Your task to perform on an android device: turn smart compose on in the gmail app Image 0: 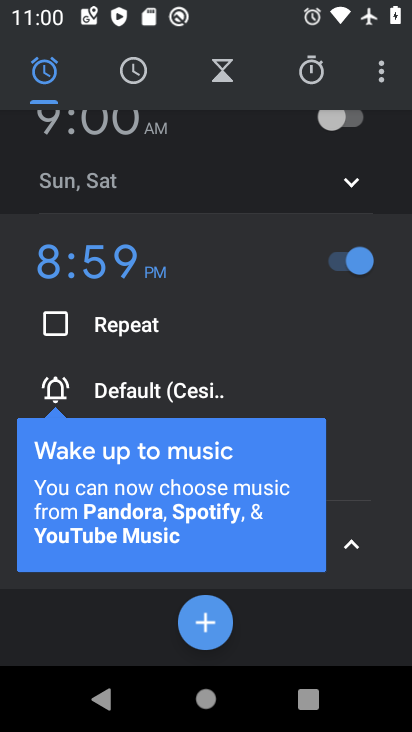
Step 0: press back button
Your task to perform on an android device: turn smart compose on in the gmail app Image 1: 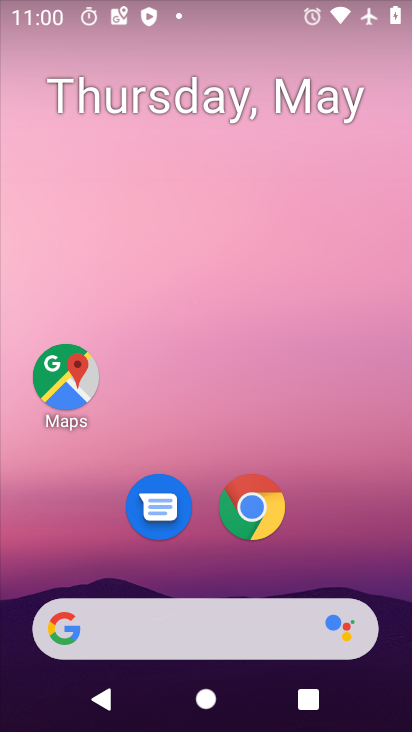
Step 1: drag from (345, 526) to (250, 14)
Your task to perform on an android device: turn smart compose on in the gmail app Image 2: 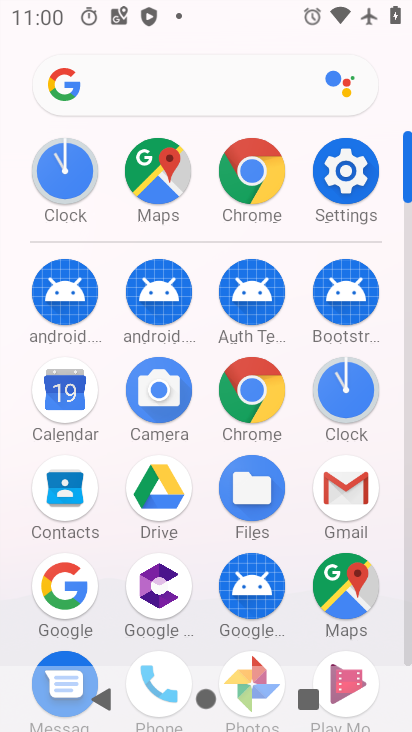
Step 2: drag from (16, 548) to (13, 220)
Your task to perform on an android device: turn smart compose on in the gmail app Image 3: 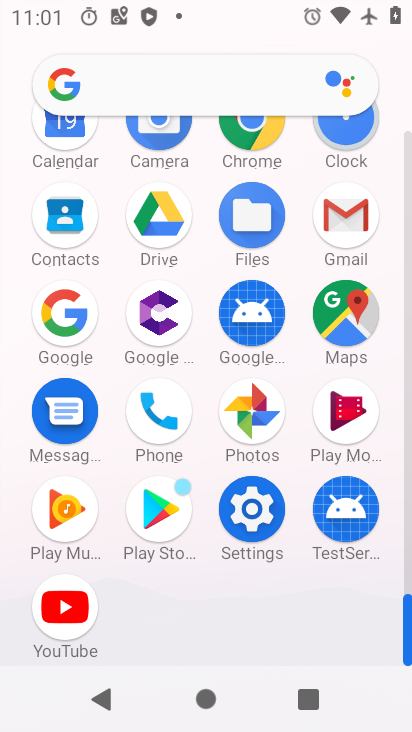
Step 3: drag from (11, 171) to (0, 434)
Your task to perform on an android device: turn smart compose on in the gmail app Image 4: 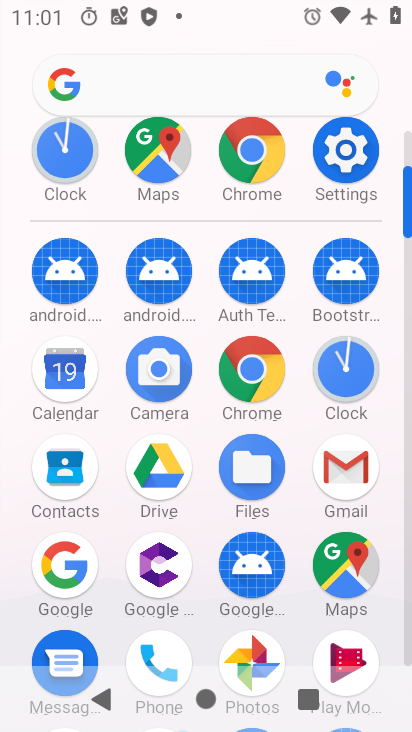
Step 4: drag from (3, 434) to (17, 145)
Your task to perform on an android device: turn smart compose on in the gmail app Image 5: 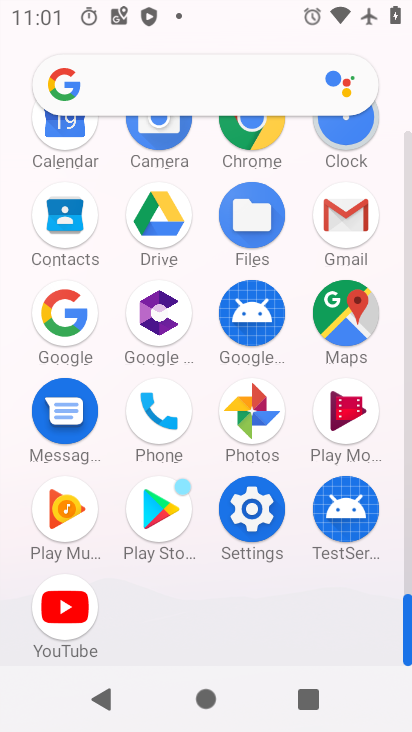
Step 5: click (345, 210)
Your task to perform on an android device: turn smart compose on in the gmail app Image 6: 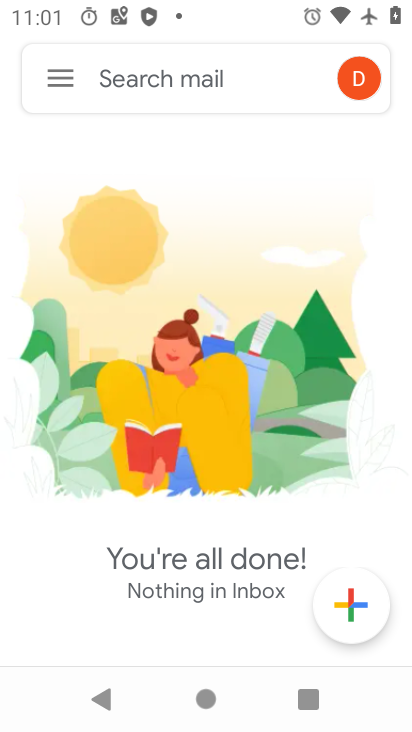
Step 6: click (64, 91)
Your task to perform on an android device: turn smart compose on in the gmail app Image 7: 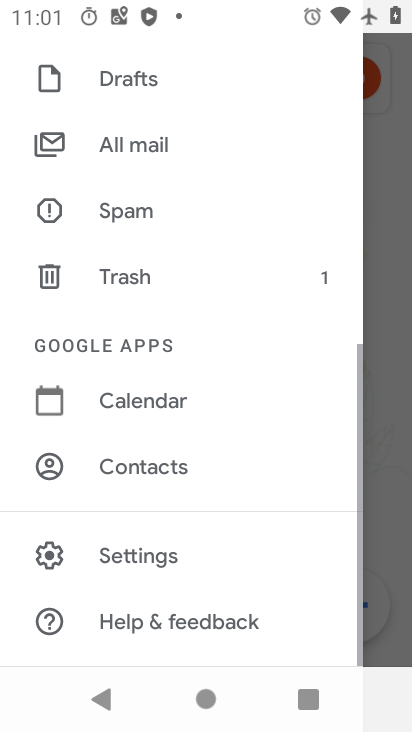
Step 7: drag from (166, 573) to (163, 136)
Your task to perform on an android device: turn smart compose on in the gmail app Image 8: 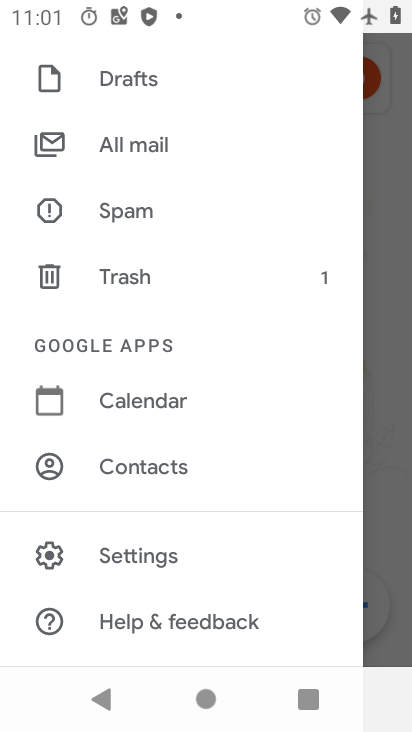
Step 8: click (173, 548)
Your task to perform on an android device: turn smart compose on in the gmail app Image 9: 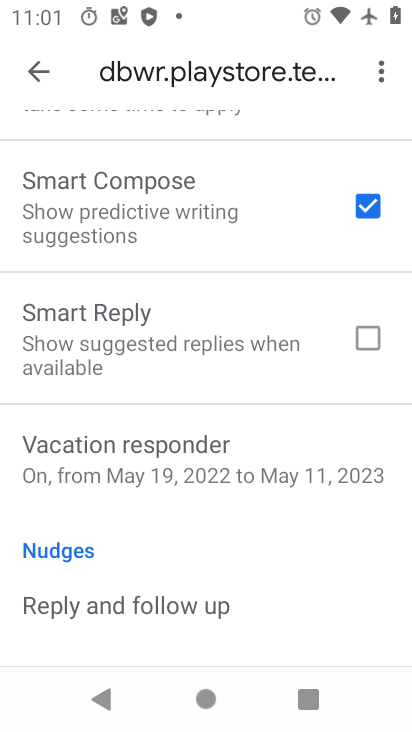
Step 9: task complete